Your task to perform on an android device: change the clock display to analog Image 0: 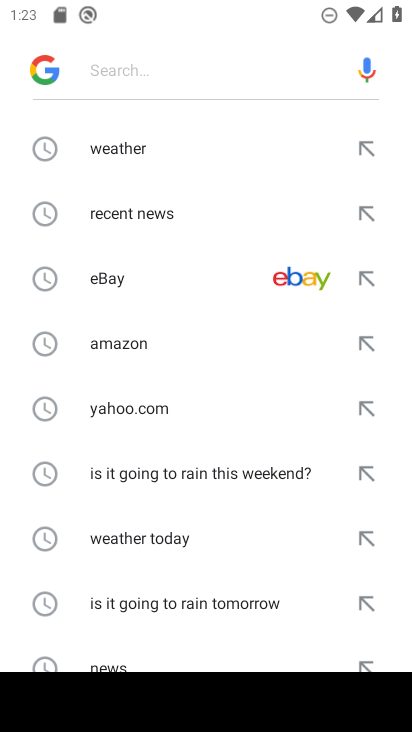
Step 0: press home button
Your task to perform on an android device: change the clock display to analog Image 1: 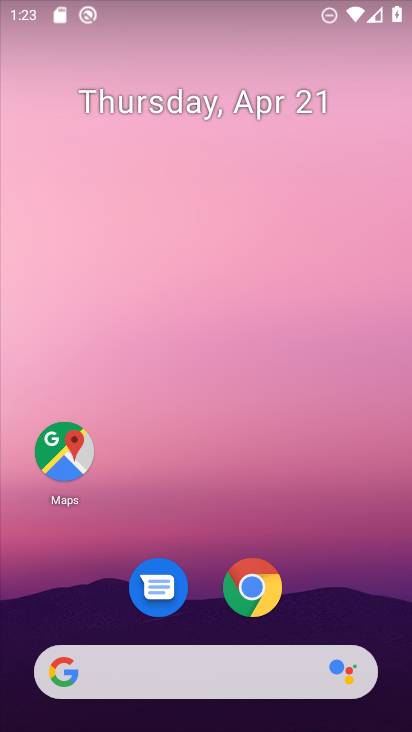
Step 1: drag from (303, 610) to (257, 80)
Your task to perform on an android device: change the clock display to analog Image 2: 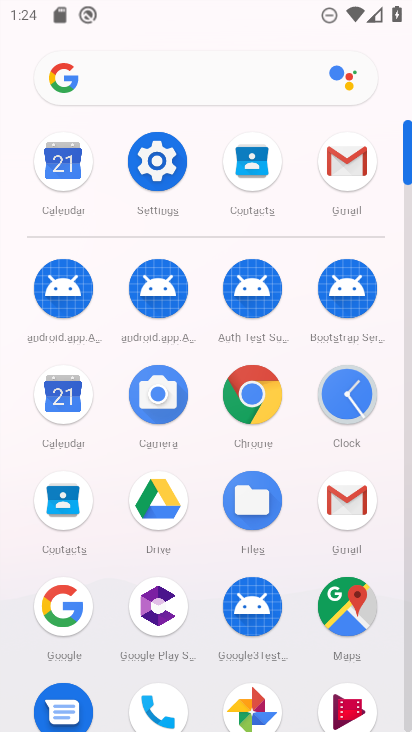
Step 2: click (344, 398)
Your task to perform on an android device: change the clock display to analog Image 3: 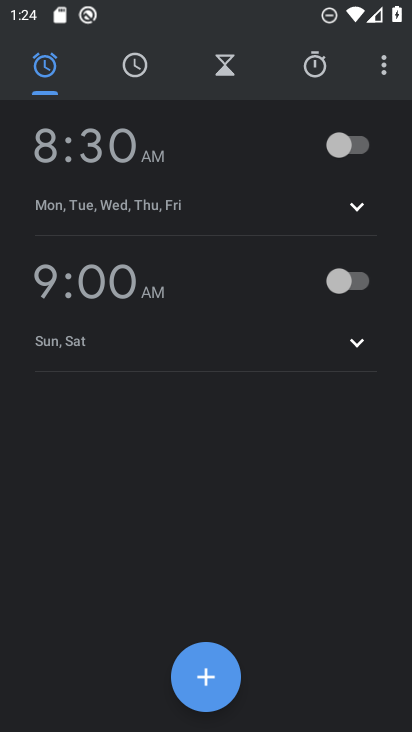
Step 3: click (375, 69)
Your task to perform on an android device: change the clock display to analog Image 4: 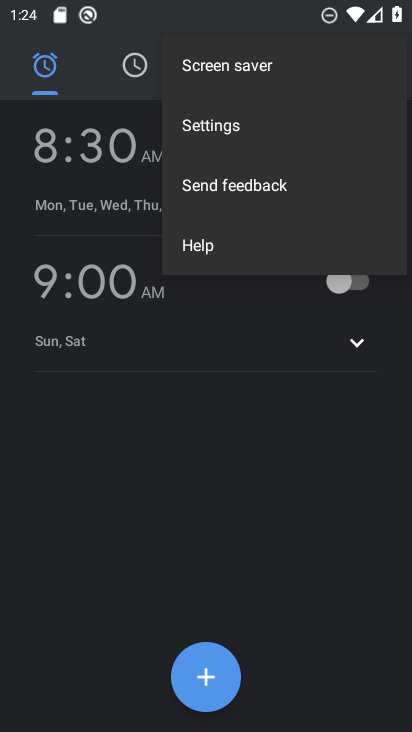
Step 4: click (234, 124)
Your task to perform on an android device: change the clock display to analog Image 5: 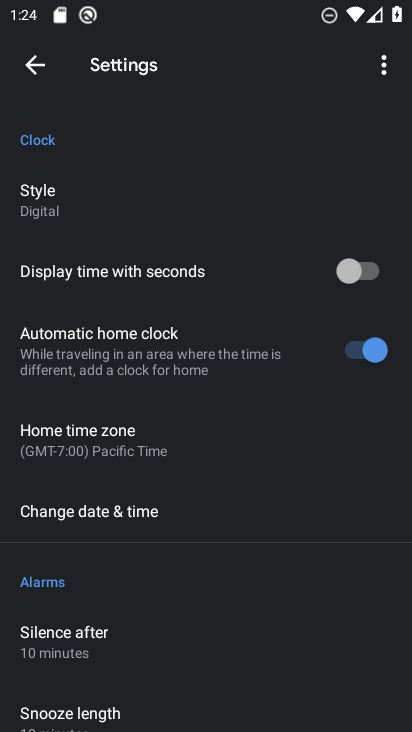
Step 5: click (51, 192)
Your task to perform on an android device: change the clock display to analog Image 6: 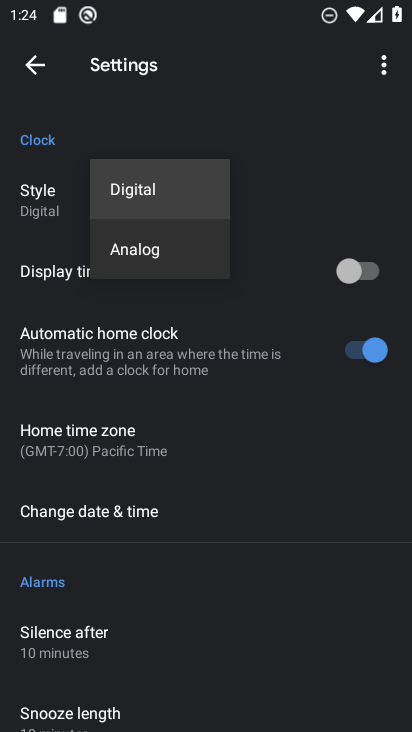
Step 6: click (126, 252)
Your task to perform on an android device: change the clock display to analog Image 7: 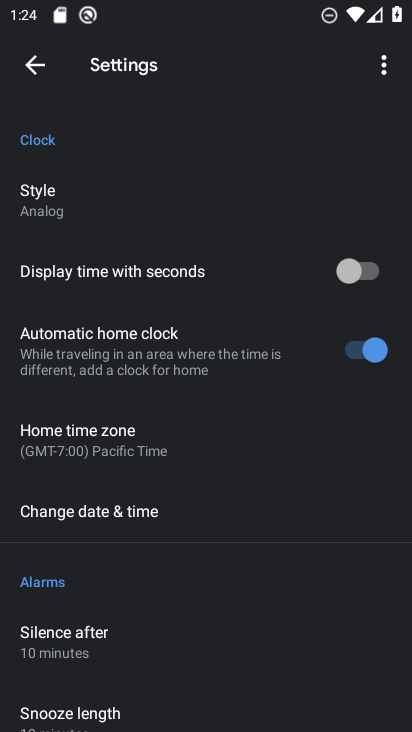
Step 7: task complete